Your task to perform on an android device: change timer sound Image 0: 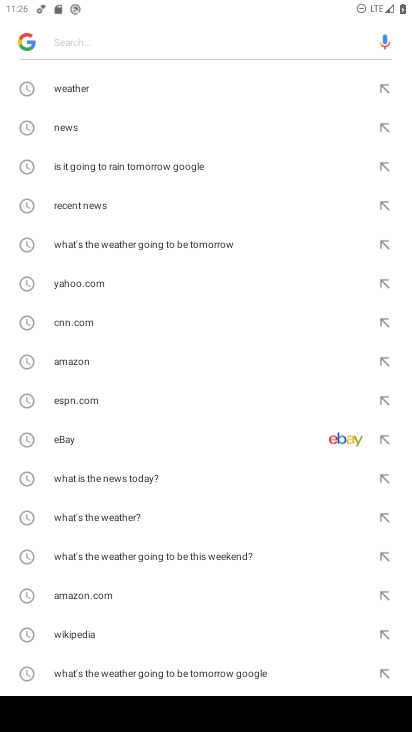
Step 0: press home button
Your task to perform on an android device: change timer sound Image 1: 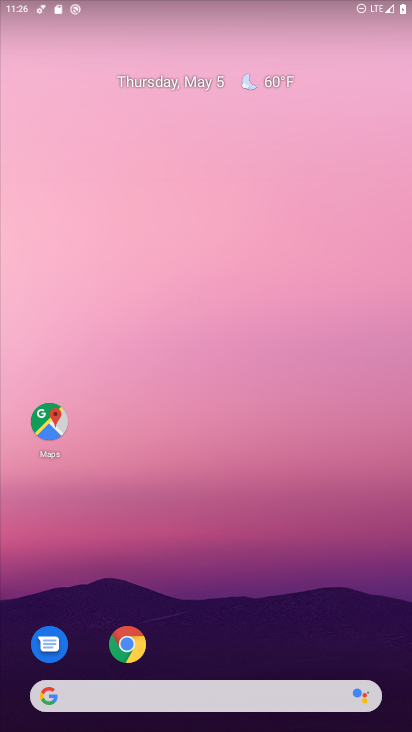
Step 1: drag from (354, 619) to (353, 159)
Your task to perform on an android device: change timer sound Image 2: 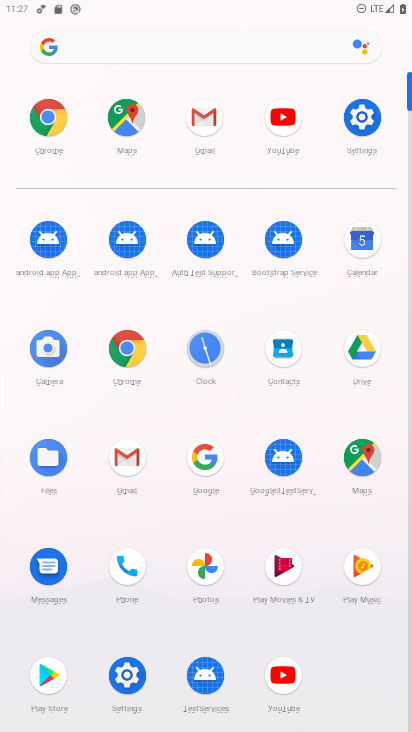
Step 2: click (208, 354)
Your task to perform on an android device: change timer sound Image 3: 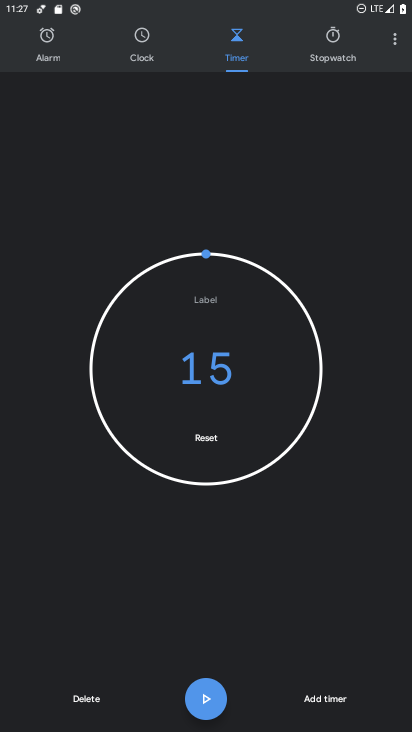
Step 3: click (397, 43)
Your task to perform on an android device: change timer sound Image 4: 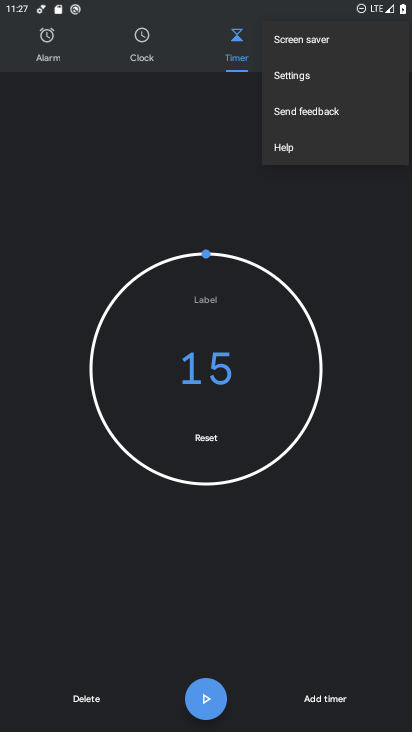
Step 4: click (303, 77)
Your task to perform on an android device: change timer sound Image 5: 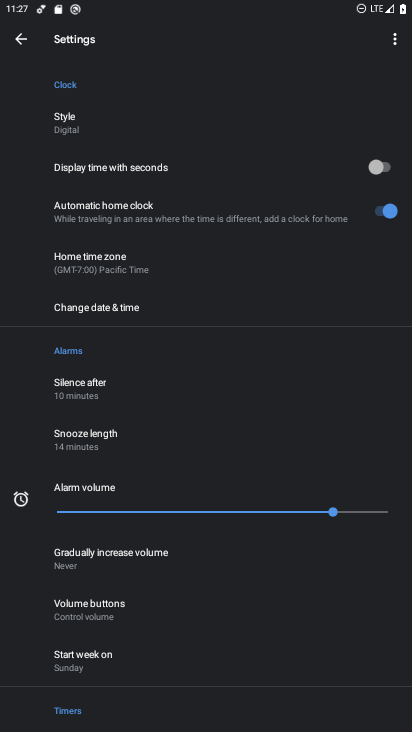
Step 5: drag from (145, 452) to (221, 178)
Your task to perform on an android device: change timer sound Image 6: 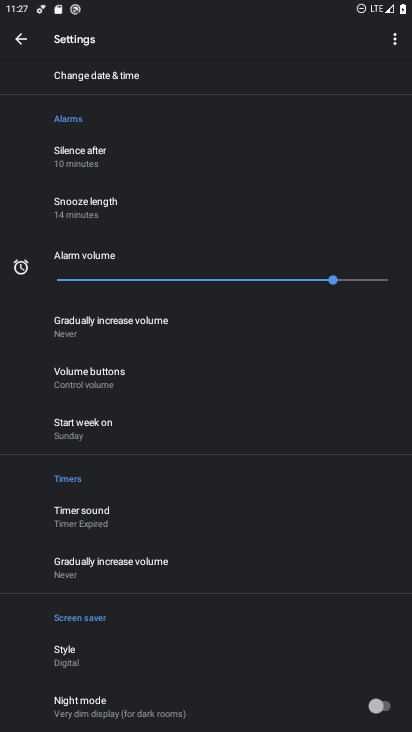
Step 6: click (114, 512)
Your task to perform on an android device: change timer sound Image 7: 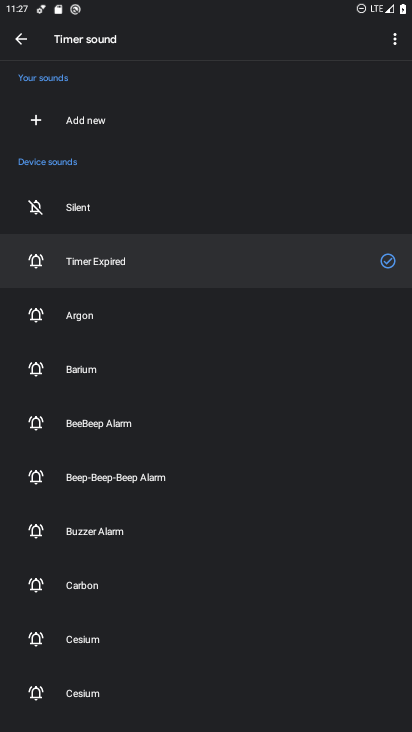
Step 7: click (96, 324)
Your task to perform on an android device: change timer sound Image 8: 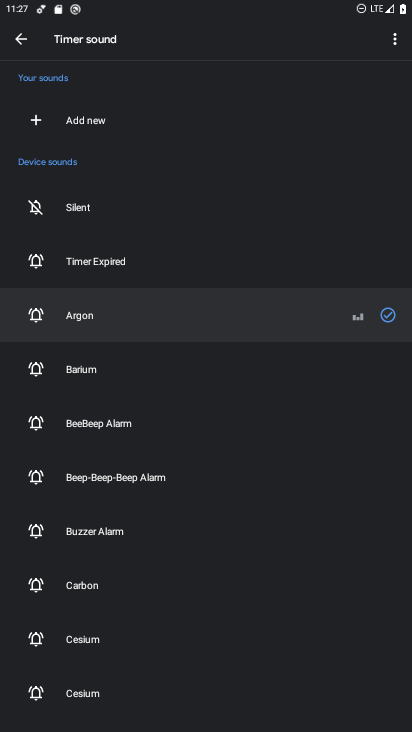
Step 8: task complete